Your task to perform on an android device: Open location settings Image 0: 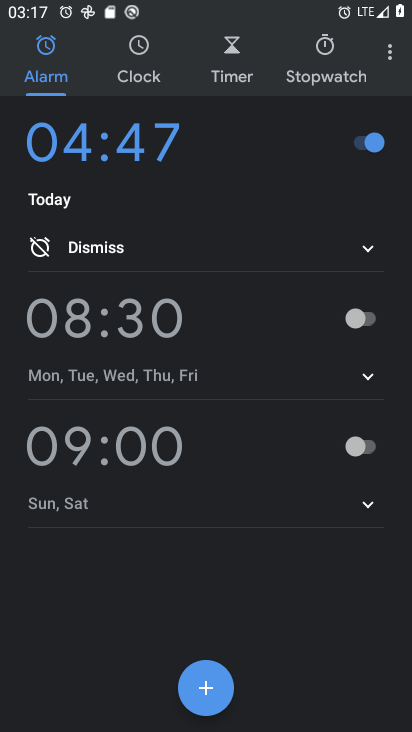
Step 0: press home button
Your task to perform on an android device: Open location settings Image 1: 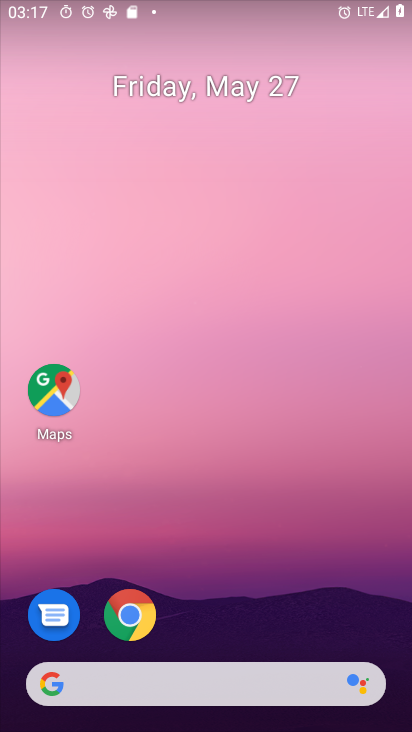
Step 1: drag from (331, 634) to (367, 224)
Your task to perform on an android device: Open location settings Image 2: 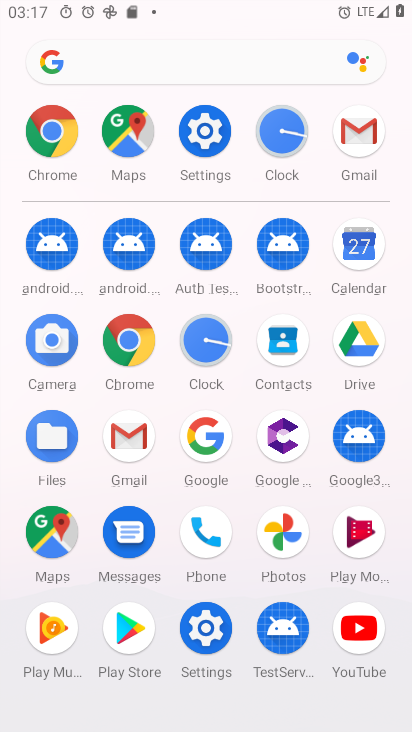
Step 2: click (193, 639)
Your task to perform on an android device: Open location settings Image 3: 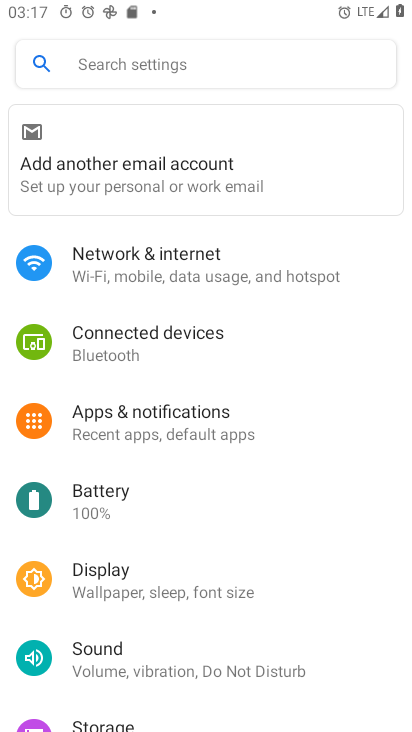
Step 3: drag from (365, 408) to (367, 529)
Your task to perform on an android device: Open location settings Image 4: 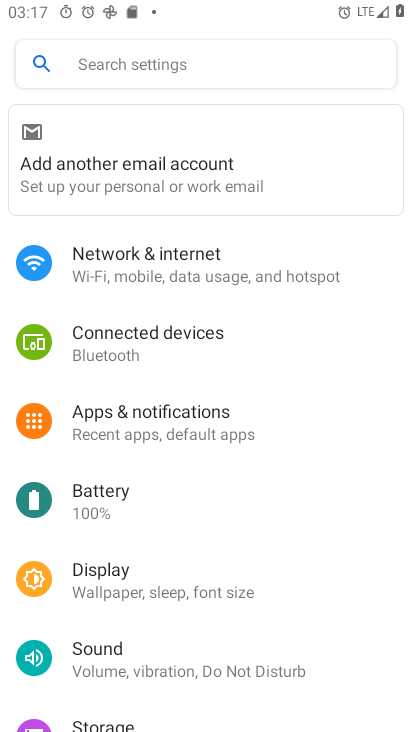
Step 4: drag from (371, 533) to (377, 420)
Your task to perform on an android device: Open location settings Image 5: 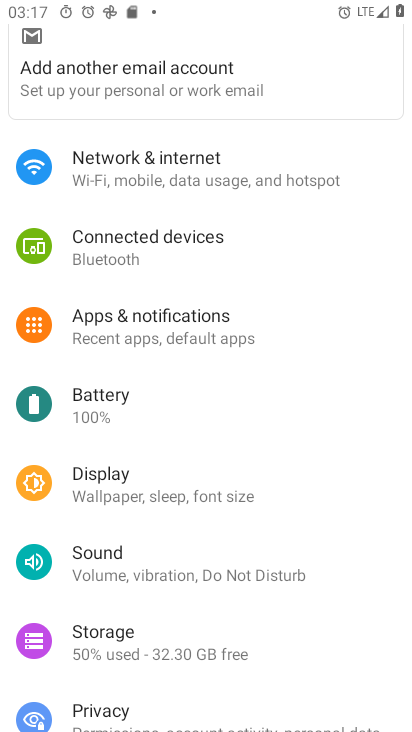
Step 5: drag from (377, 508) to (379, 432)
Your task to perform on an android device: Open location settings Image 6: 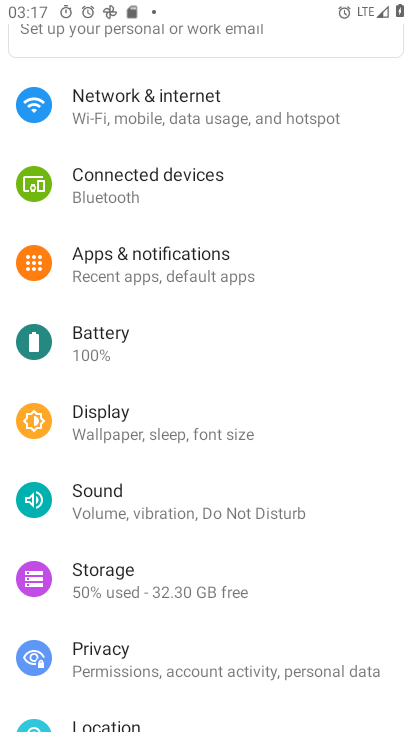
Step 6: drag from (362, 538) to (367, 435)
Your task to perform on an android device: Open location settings Image 7: 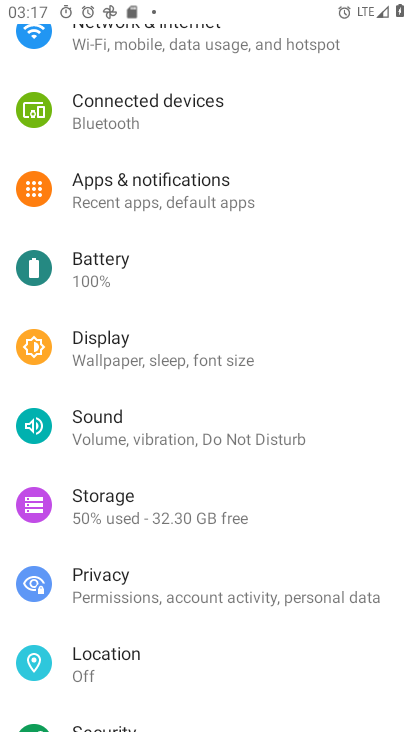
Step 7: drag from (353, 548) to (364, 419)
Your task to perform on an android device: Open location settings Image 8: 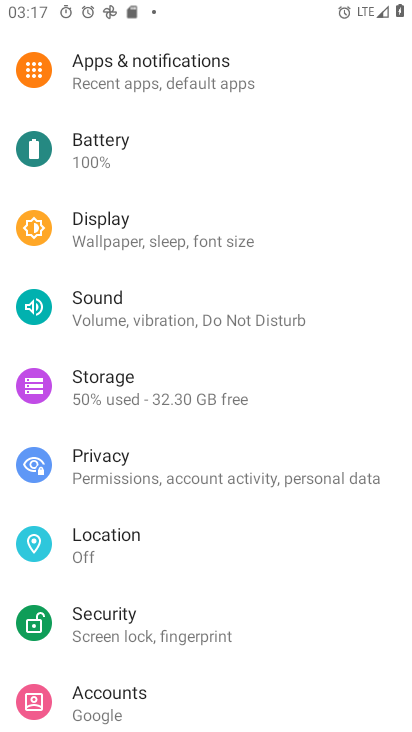
Step 8: drag from (356, 522) to (360, 429)
Your task to perform on an android device: Open location settings Image 9: 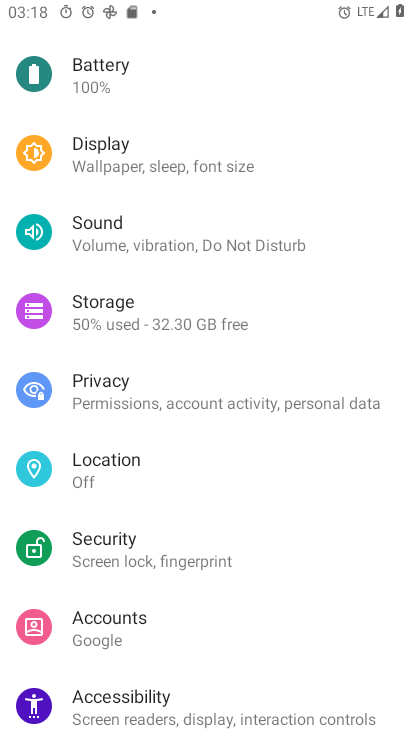
Step 9: drag from (348, 516) to (361, 436)
Your task to perform on an android device: Open location settings Image 10: 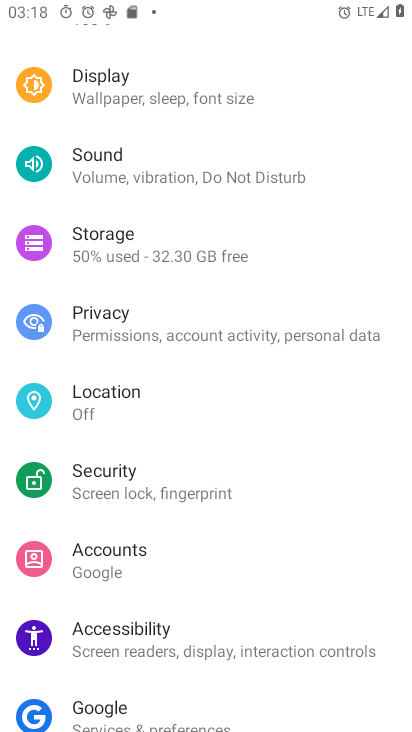
Step 10: click (208, 427)
Your task to perform on an android device: Open location settings Image 11: 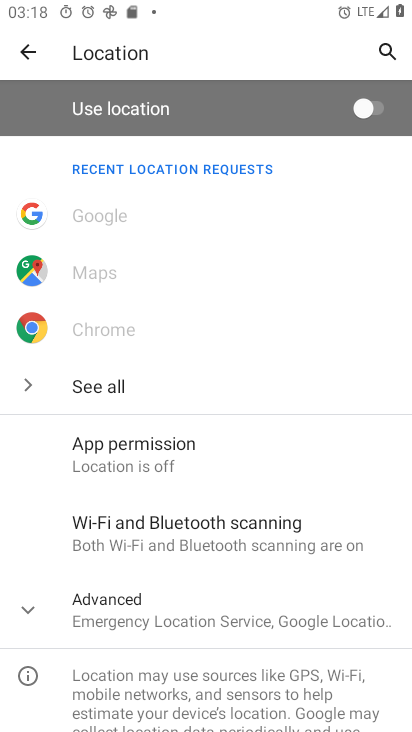
Step 11: task complete